Your task to perform on an android device: all mails in gmail Image 0: 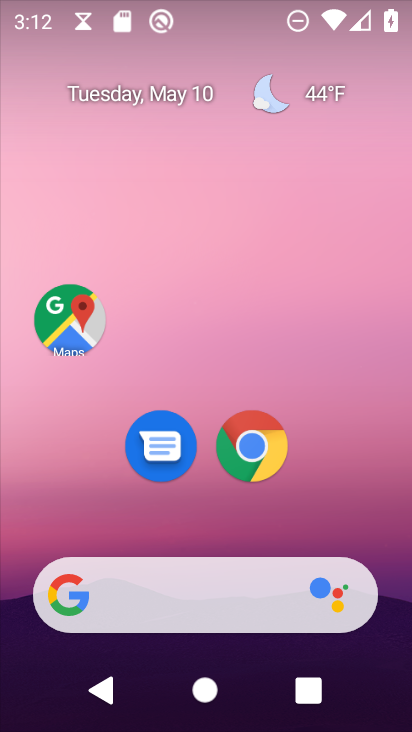
Step 0: drag from (392, 495) to (360, 92)
Your task to perform on an android device: all mails in gmail Image 1: 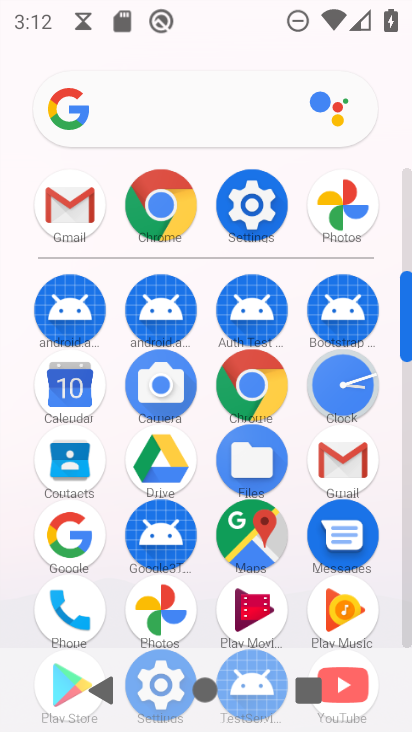
Step 1: click (348, 453)
Your task to perform on an android device: all mails in gmail Image 2: 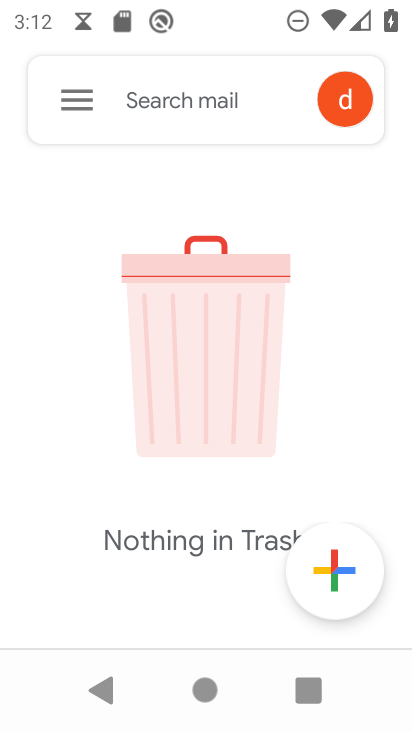
Step 2: click (69, 113)
Your task to perform on an android device: all mails in gmail Image 3: 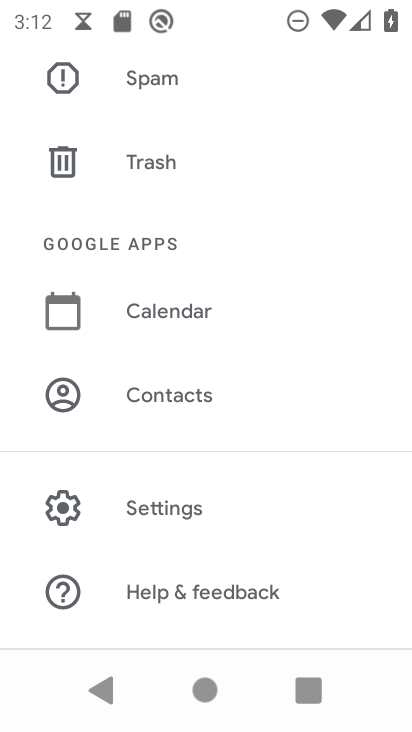
Step 3: drag from (170, 516) to (225, 177)
Your task to perform on an android device: all mails in gmail Image 4: 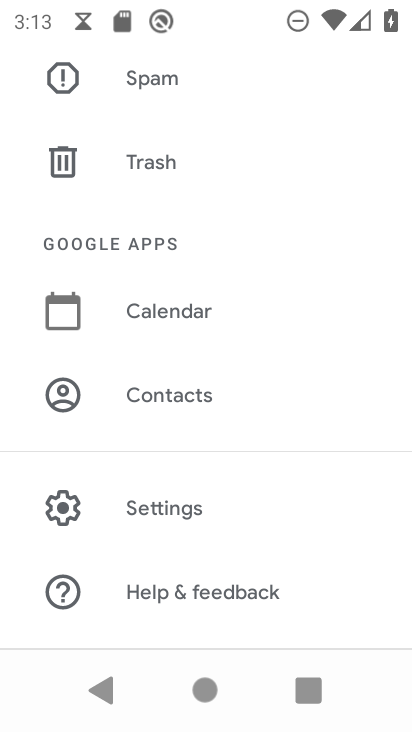
Step 4: click (172, 514)
Your task to perform on an android device: all mails in gmail Image 5: 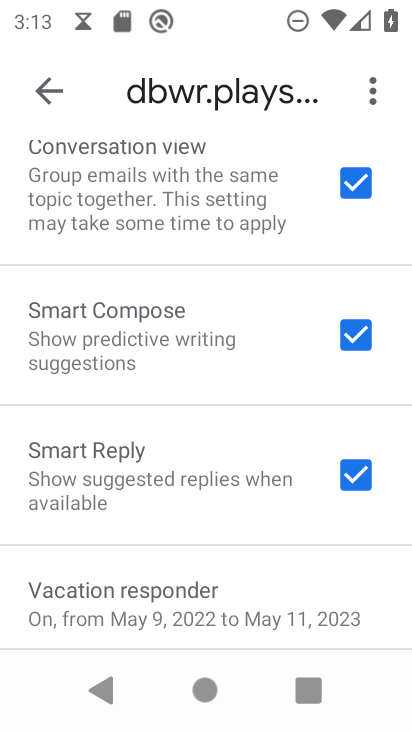
Step 5: task complete